Your task to perform on an android device: snooze an email in the gmail app Image 0: 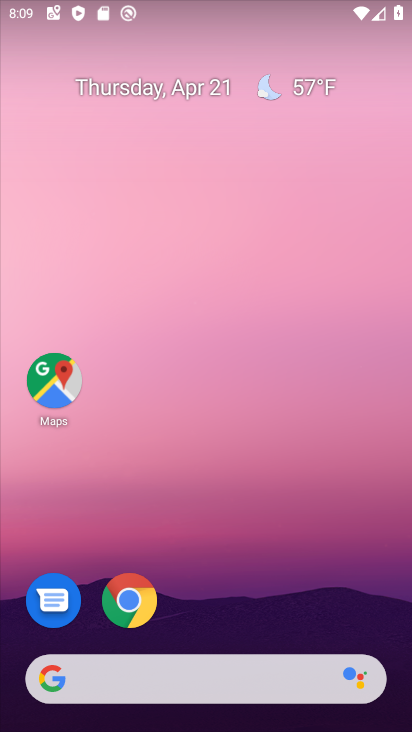
Step 0: drag from (213, 610) to (220, 204)
Your task to perform on an android device: snooze an email in the gmail app Image 1: 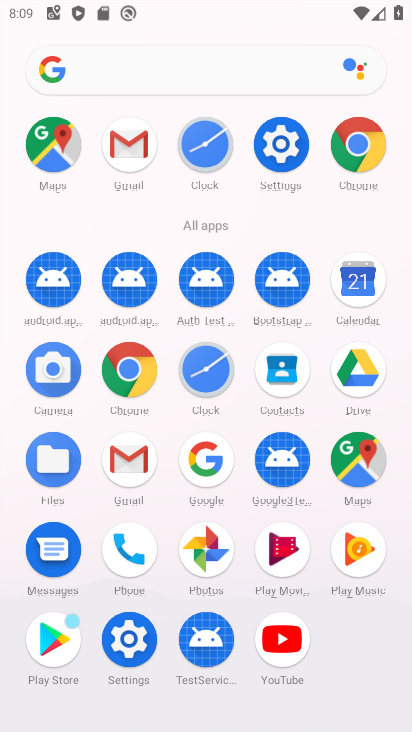
Step 1: click (127, 145)
Your task to perform on an android device: snooze an email in the gmail app Image 2: 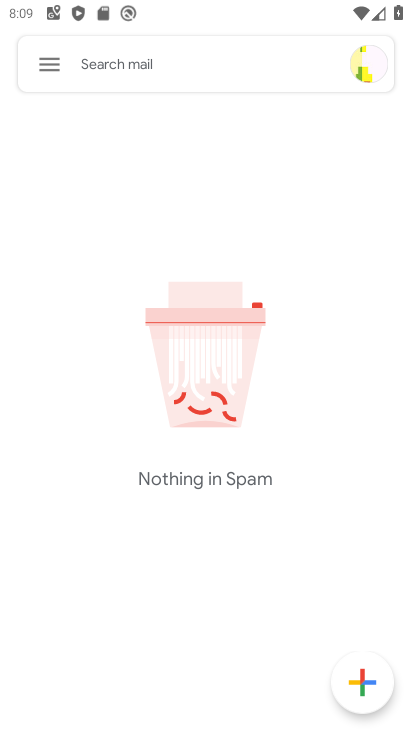
Step 2: click (52, 77)
Your task to perform on an android device: snooze an email in the gmail app Image 3: 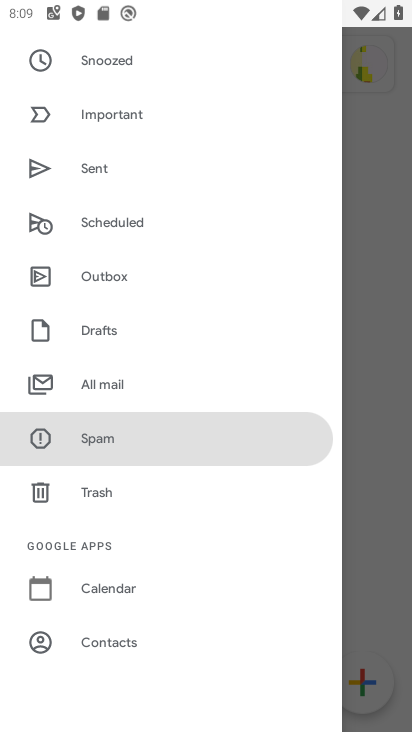
Step 3: click (107, 361)
Your task to perform on an android device: snooze an email in the gmail app Image 4: 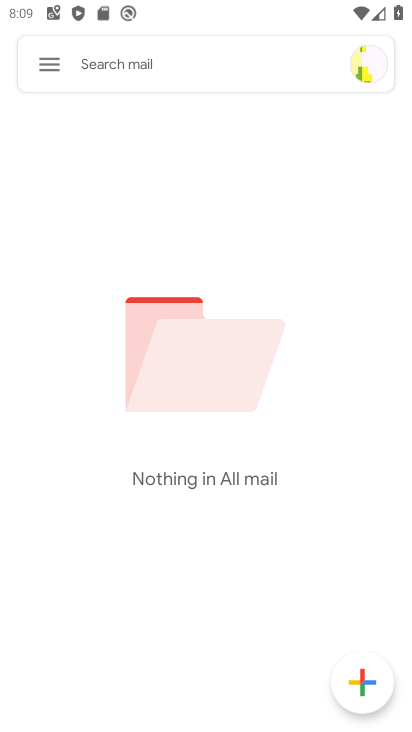
Step 4: task complete